Your task to perform on an android device: turn vacation reply on in the gmail app Image 0: 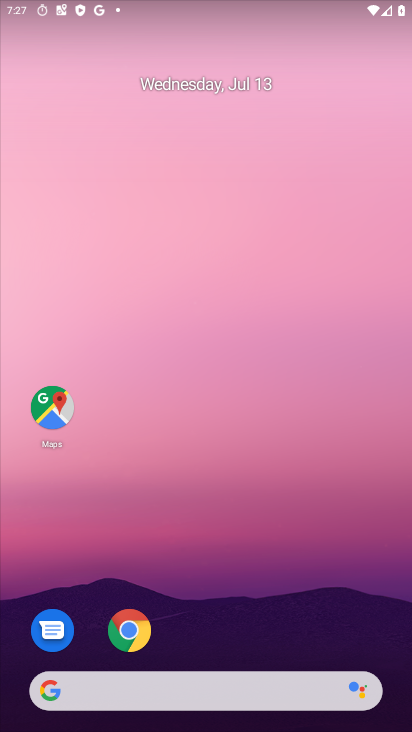
Step 0: drag from (338, 627) to (204, 33)
Your task to perform on an android device: turn vacation reply on in the gmail app Image 1: 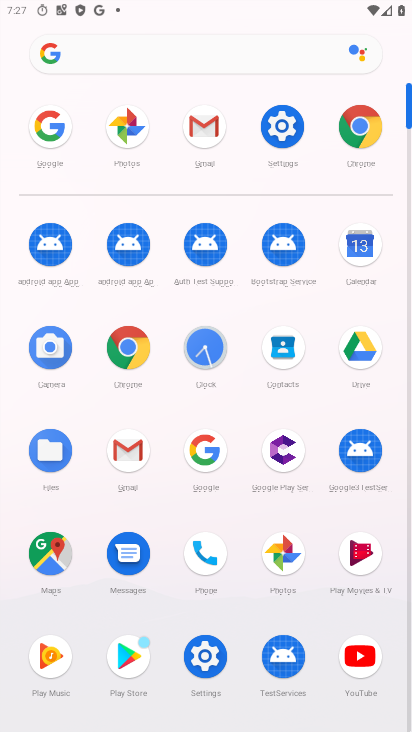
Step 1: click (128, 462)
Your task to perform on an android device: turn vacation reply on in the gmail app Image 2: 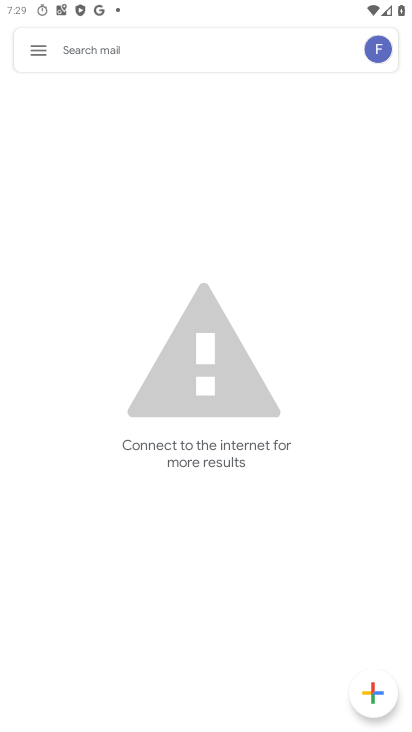
Step 2: click (40, 51)
Your task to perform on an android device: turn vacation reply on in the gmail app Image 3: 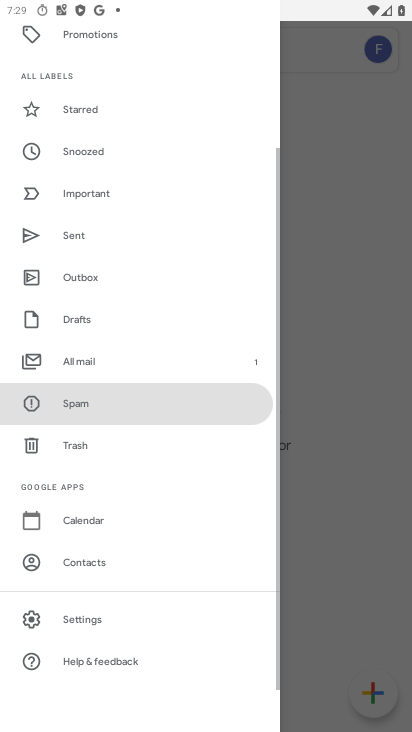
Step 3: click (106, 611)
Your task to perform on an android device: turn vacation reply on in the gmail app Image 4: 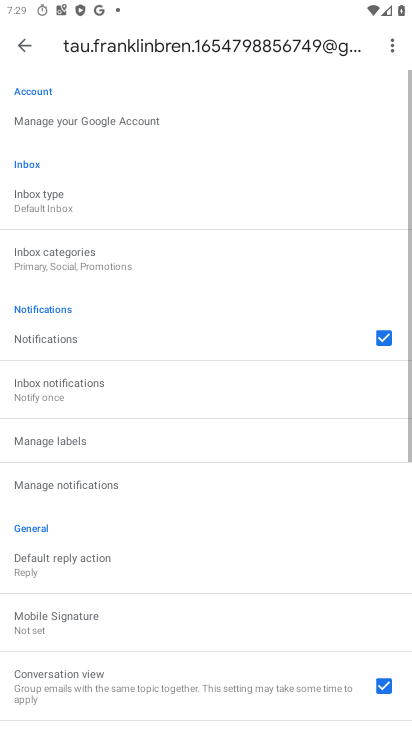
Step 4: drag from (108, 605) to (166, 117)
Your task to perform on an android device: turn vacation reply on in the gmail app Image 5: 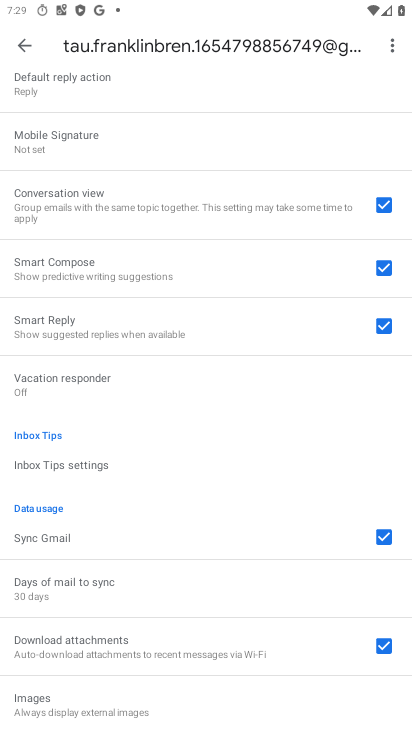
Step 5: drag from (170, 660) to (158, 97)
Your task to perform on an android device: turn vacation reply on in the gmail app Image 6: 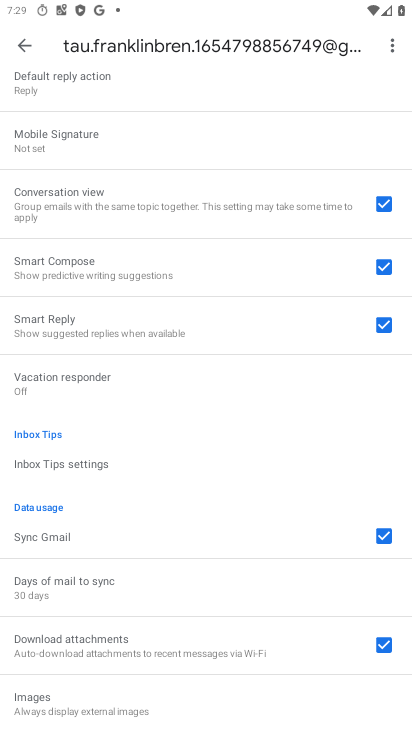
Step 6: click (61, 380)
Your task to perform on an android device: turn vacation reply on in the gmail app Image 7: 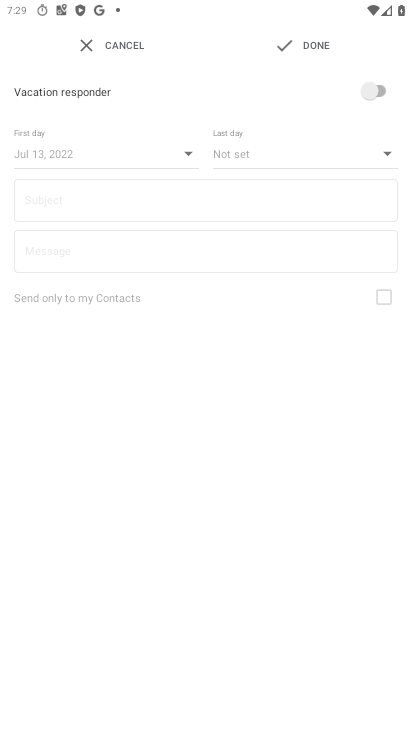
Step 7: click (374, 85)
Your task to perform on an android device: turn vacation reply on in the gmail app Image 8: 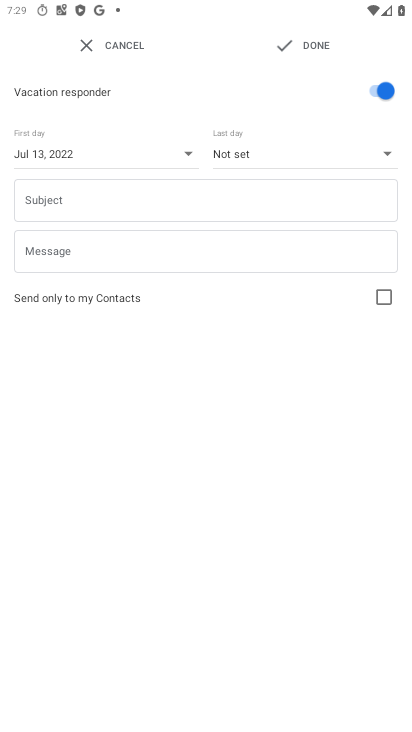
Step 8: task complete